Your task to perform on an android device: Open the web browser Image 0: 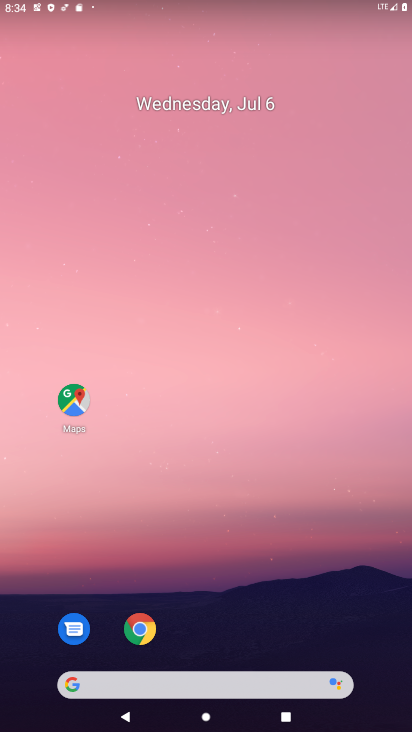
Step 0: click (143, 622)
Your task to perform on an android device: Open the web browser Image 1: 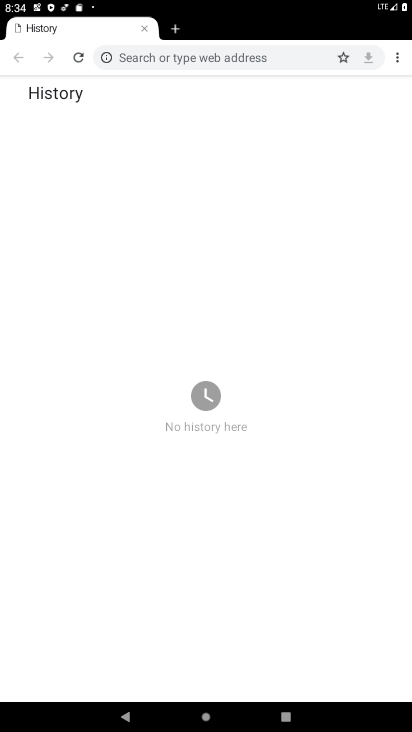
Step 1: task complete